Your task to perform on an android device: add a contact in the contacts app Image 0: 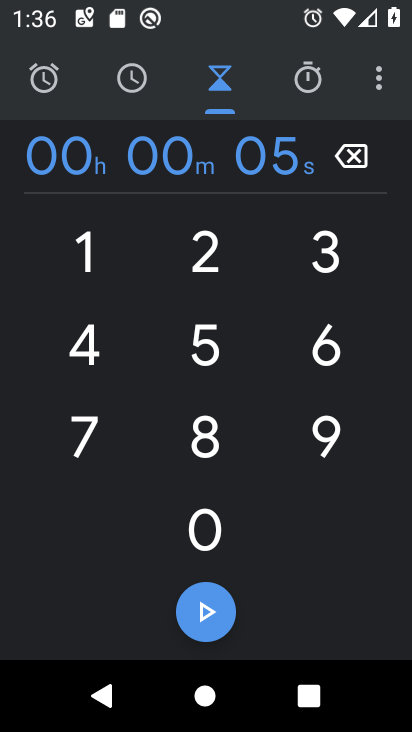
Step 0: press home button
Your task to perform on an android device: add a contact in the contacts app Image 1: 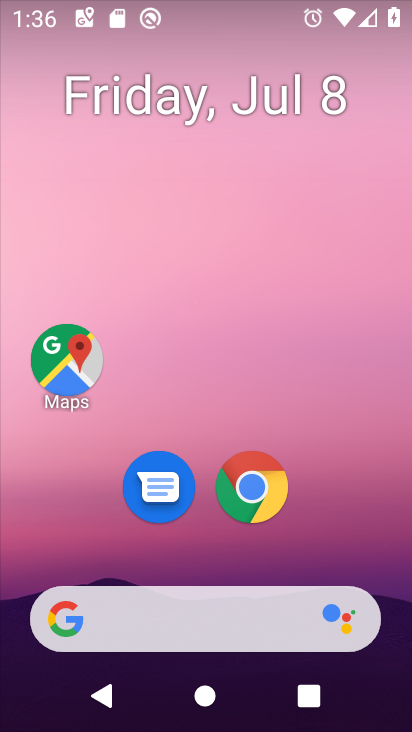
Step 1: drag from (367, 545) to (369, 214)
Your task to perform on an android device: add a contact in the contacts app Image 2: 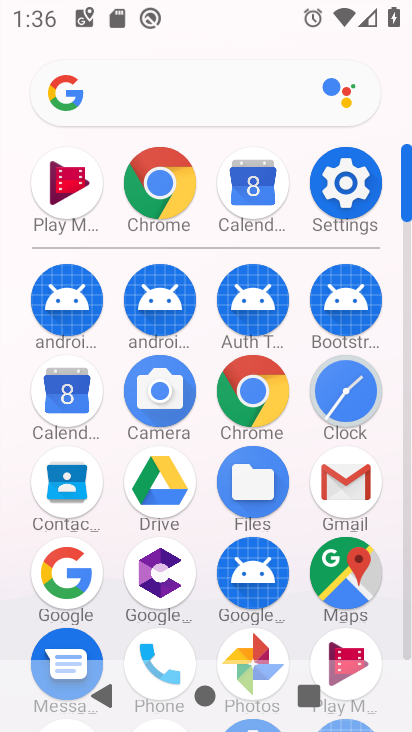
Step 2: click (85, 487)
Your task to perform on an android device: add a contact in the contacts app Image 3: 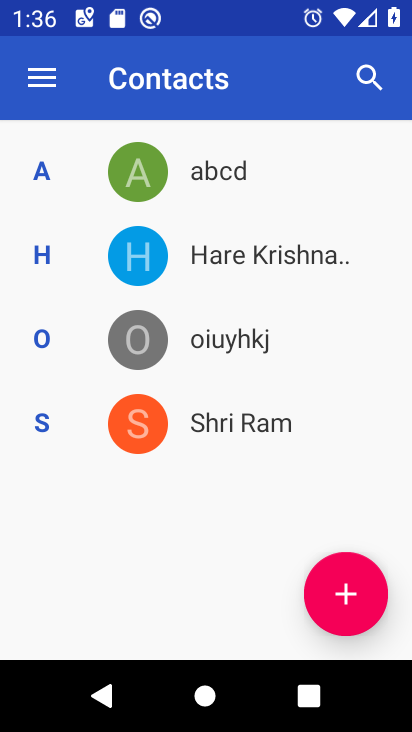
Step 3: click (332, 594)
Your task to perform on an android device: add a contact in the contacts app Image 4: 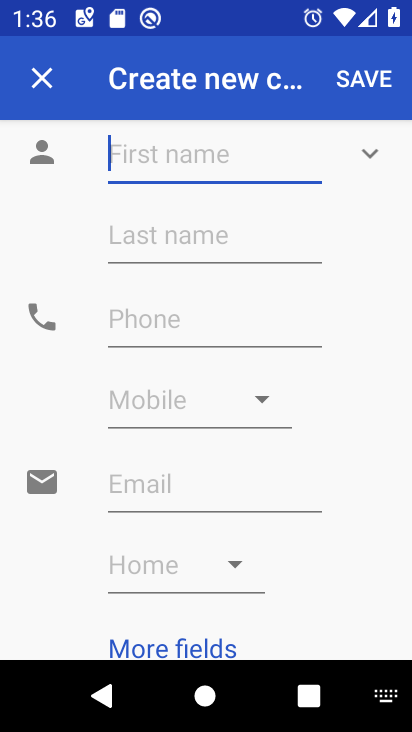
Step 4: type "loll"
Your task to perform on an android device: add a contact in the contacts app Image 5: 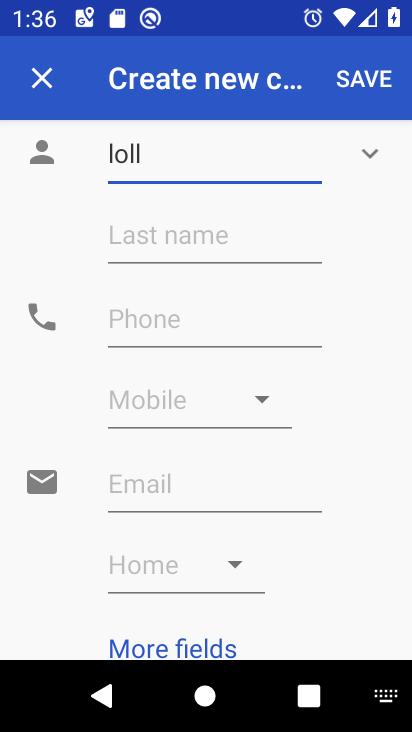
Step 5: click (316, 322)
Your task to perform on an android device: add a contact in the contacts app Image 6: 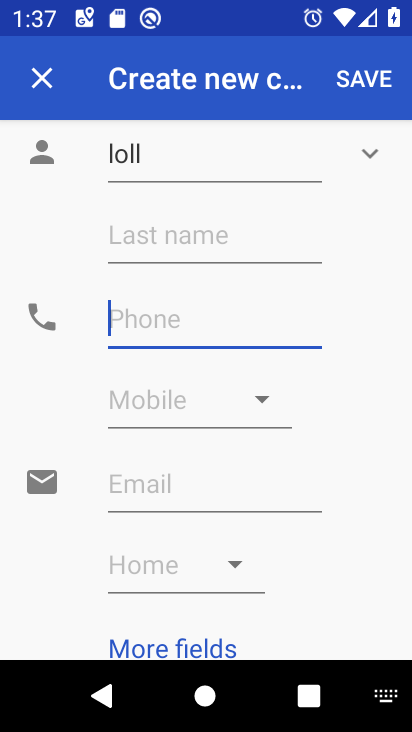
Step 6: type "234456677889"
Your task to perform on an android device: add a contact in the contacts app Image 7: 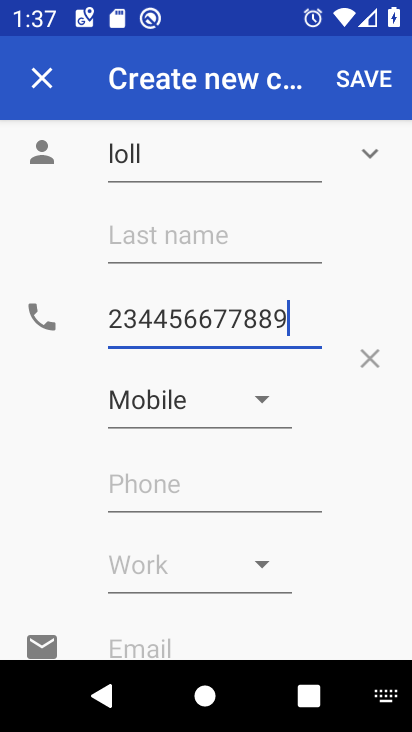
Step 7: click (371, 88)
Your task to perform on an android device: add a contact in the contacts app Image 8: 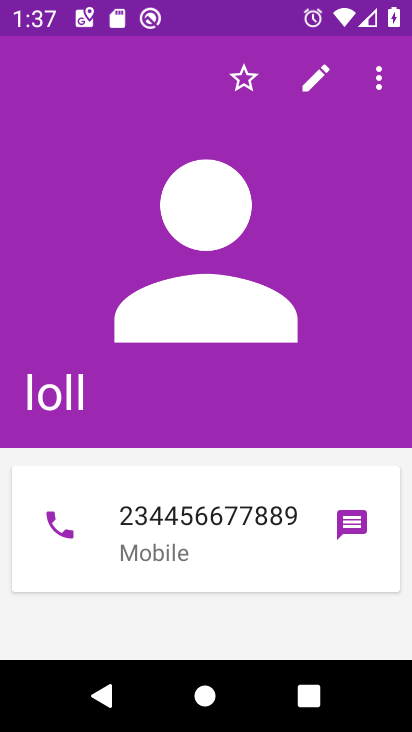
Step 8: task complete